Your task to perform on an android device: Go to network settings Image 0: 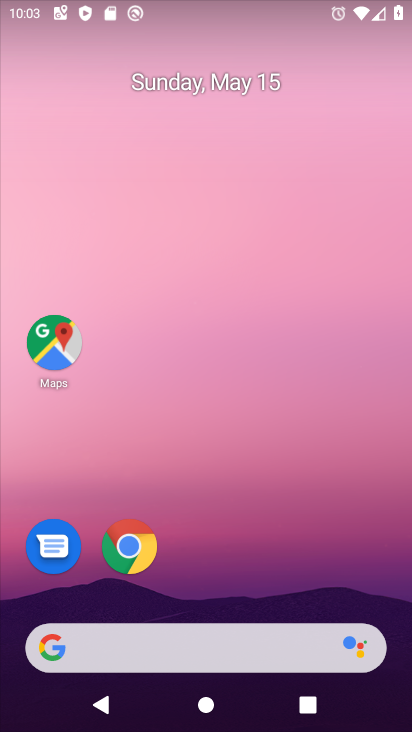
Step 0: click (353, 99)
Your task to perform on an android device: Go to network settings Image 1: 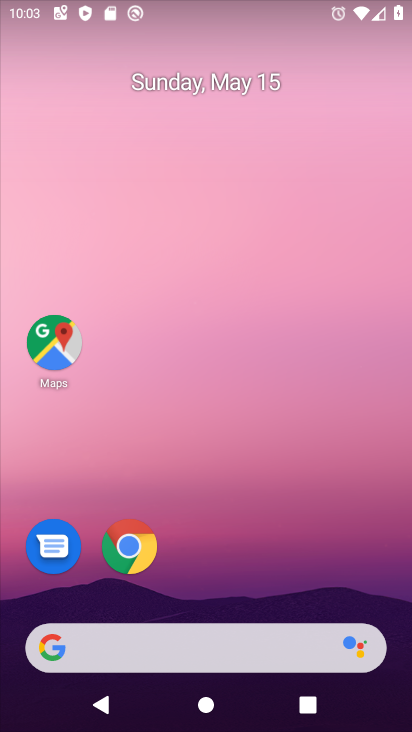
Step 1: drag from (310, 568) to (358, 160)
Your task to perform on an android device: Go to network settings Image 2: 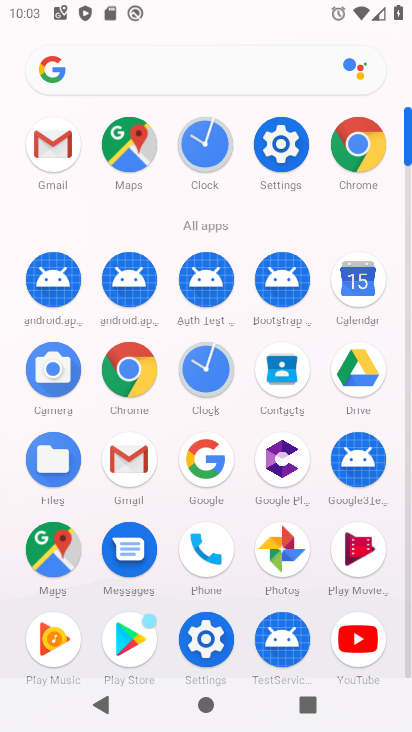
Step 2: click (290, 143)
Your task to perform on an android device: Go to network settings Image 3: 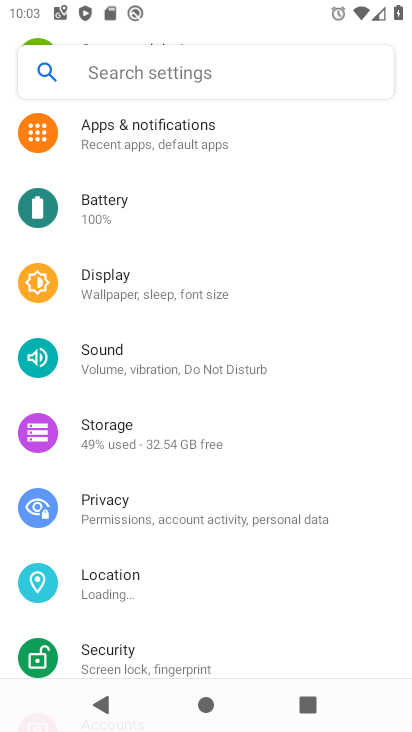
Step 3: drag from (213, 147) to (203, 490)
Your task to perform on an android device: Go to network settings Image 4: 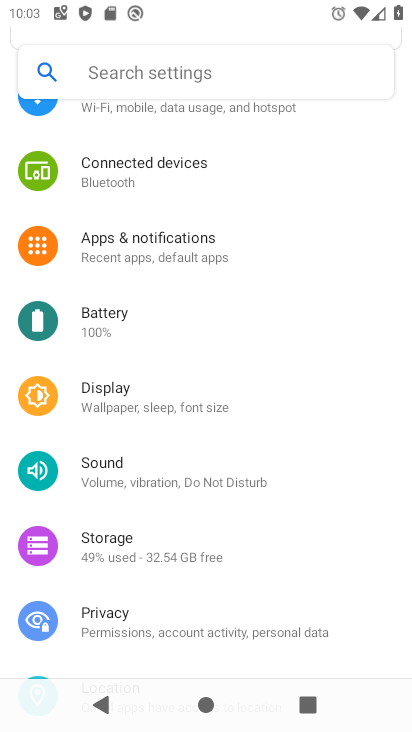
Step 4: drag from (213, 164) to (192, 537)
Your task to perform on an android device: Go to network settings Image 5: 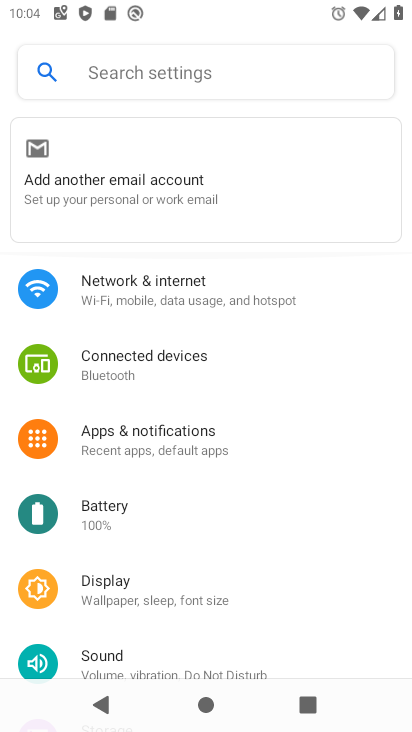
Step 5: click (194, 315)
Your task to perform on an android device: Go to network settings Image 6: 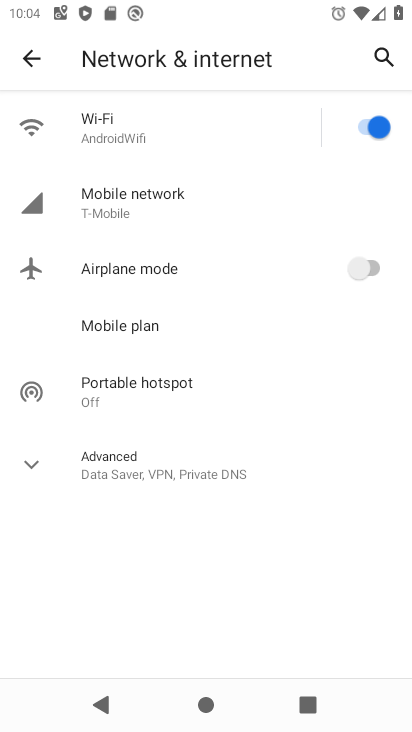
Step 6: task complete